Your task to perform on an android device: turn on showing notifications on the lock screen Image 0: 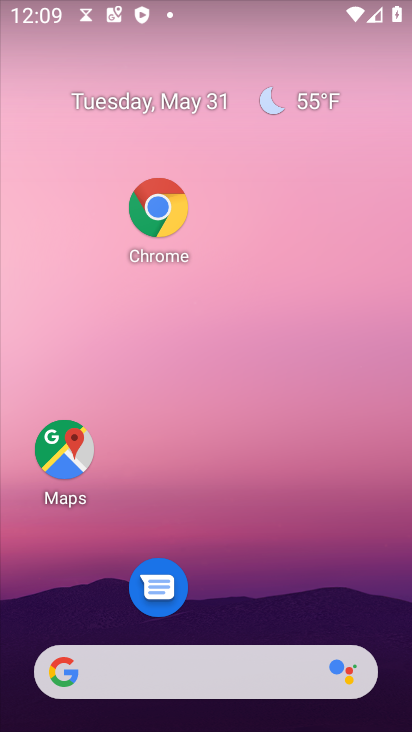
Step 0: drag from (241, 605) to (236, 160)
Your task to perform on an android device: turn on showing notifications on the lock screen Image 1: 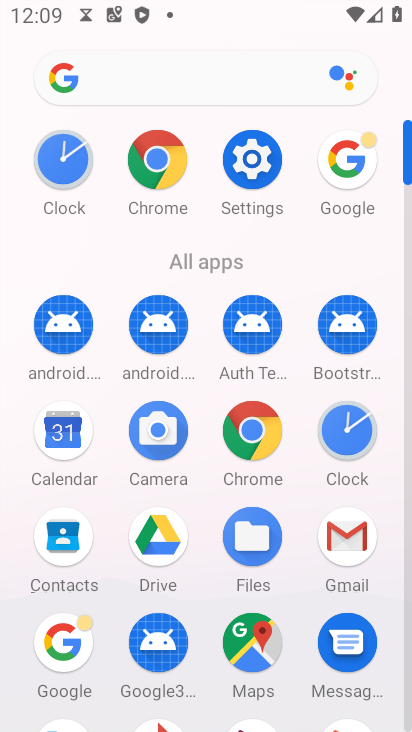
Step 1: click (246, 178)
Your task to perform on an android device: turn on showing notifications on the lock screen Image 2: 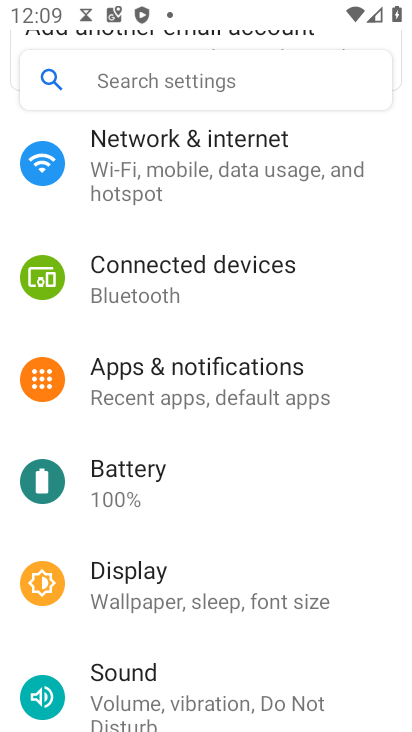
Step 2: click (147, 377)
Your task to perform on an android device: turn on showing notifications on the lock screen Image 3: 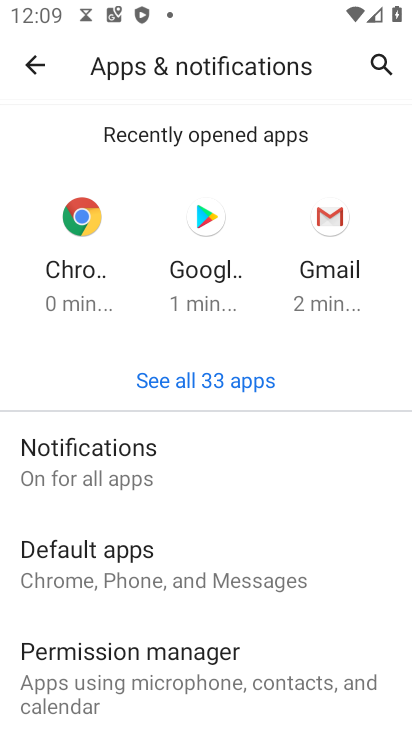
Step 3: click (105, 460)
Your task to perform on an android device: turn on showing notifications on the lock screen Image 4: 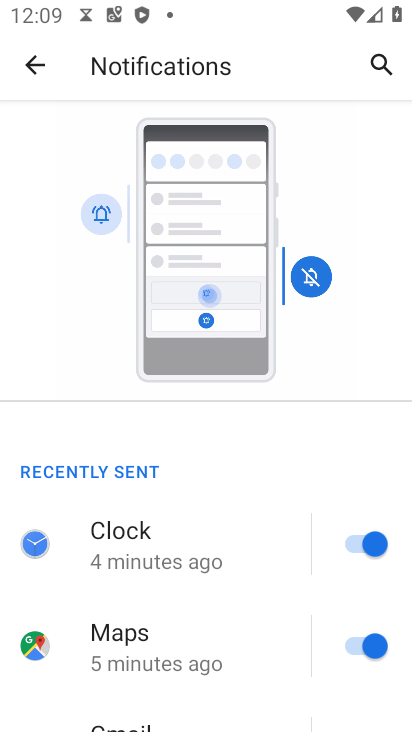
Step 4: task complete